Your task to perform on an android device: check storage Image 0: 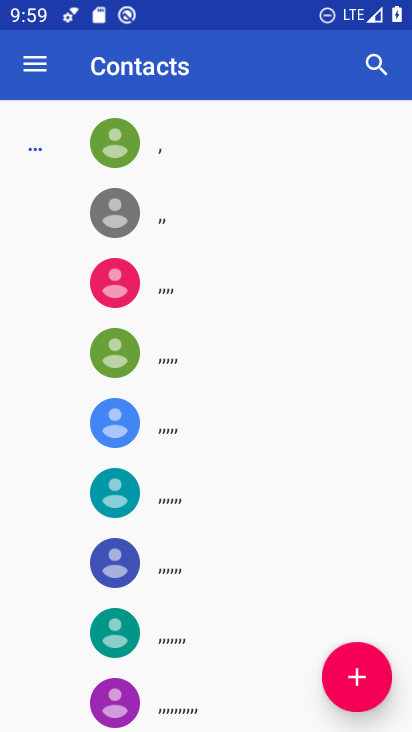
Step 0: press home button
Your task to perform on an android device: check storage Image 1: 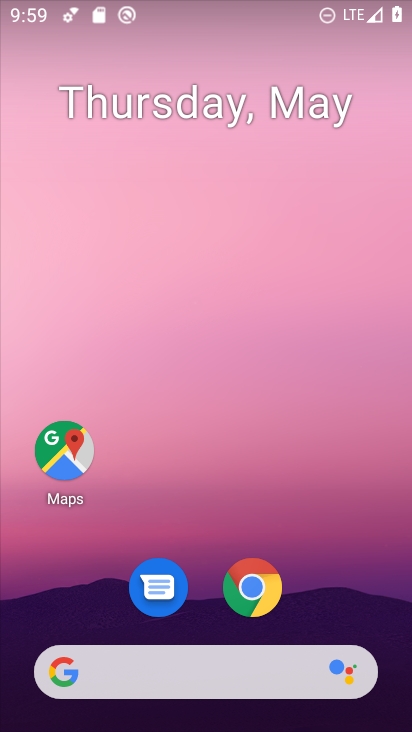
Step 1: drag from (340, 621) to (356, 1)
Your task to perform on an android device: check storage Image 2: 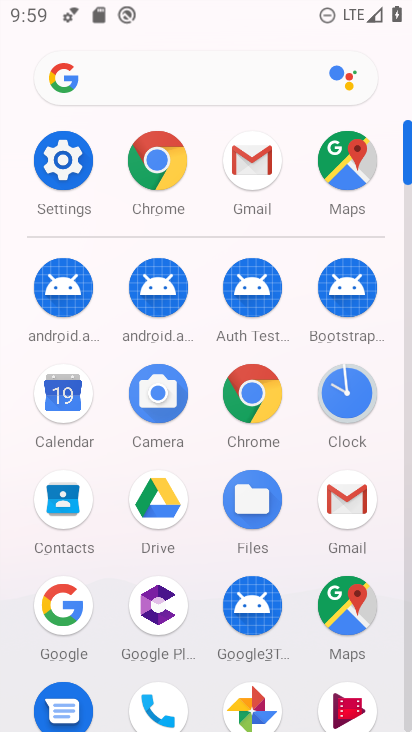
Step 2: click (59, 172)
Your task to perform on an android device: check storage Image 3: 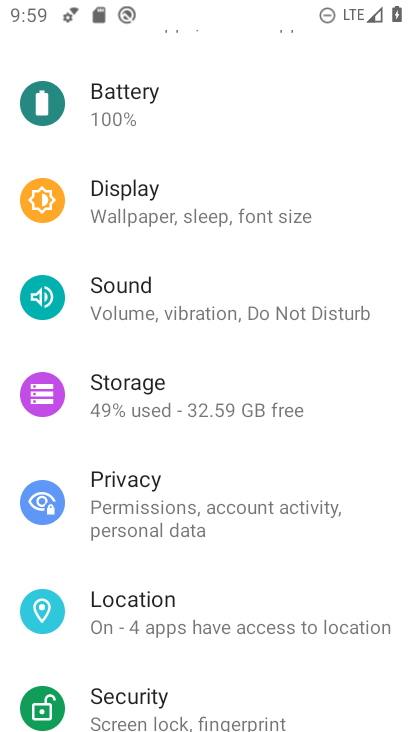
Step 3: click (142, 391)
Your task to perform on an android device: check storage Image 4: 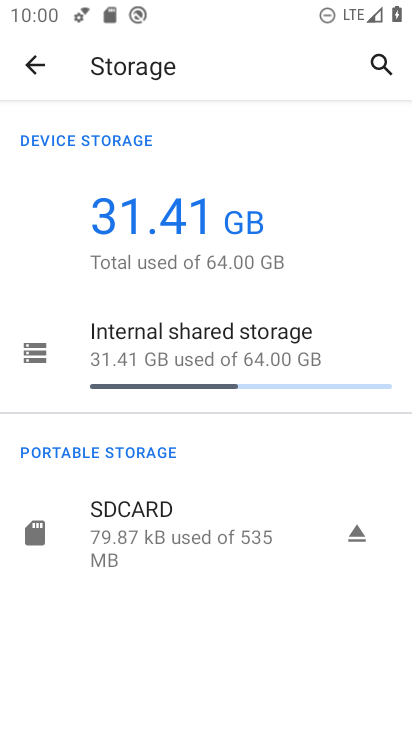
Step 4: click (172, 363)
Your task to perform on an android device: check storage Image 5: 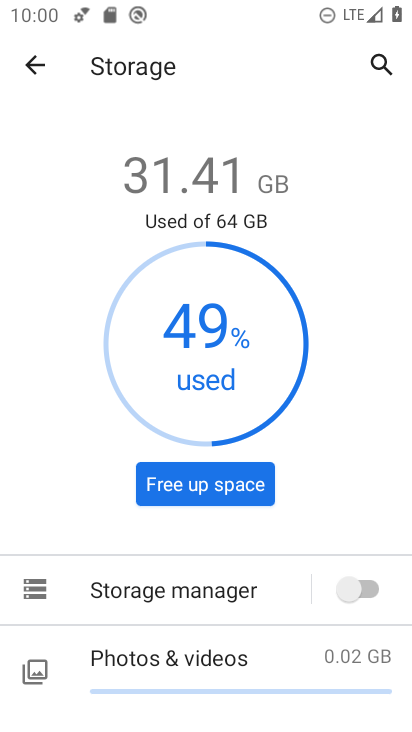
Step 5: task complete